Your task to perform on an android device: open chrome and create a bookmark for the current page Image 0: 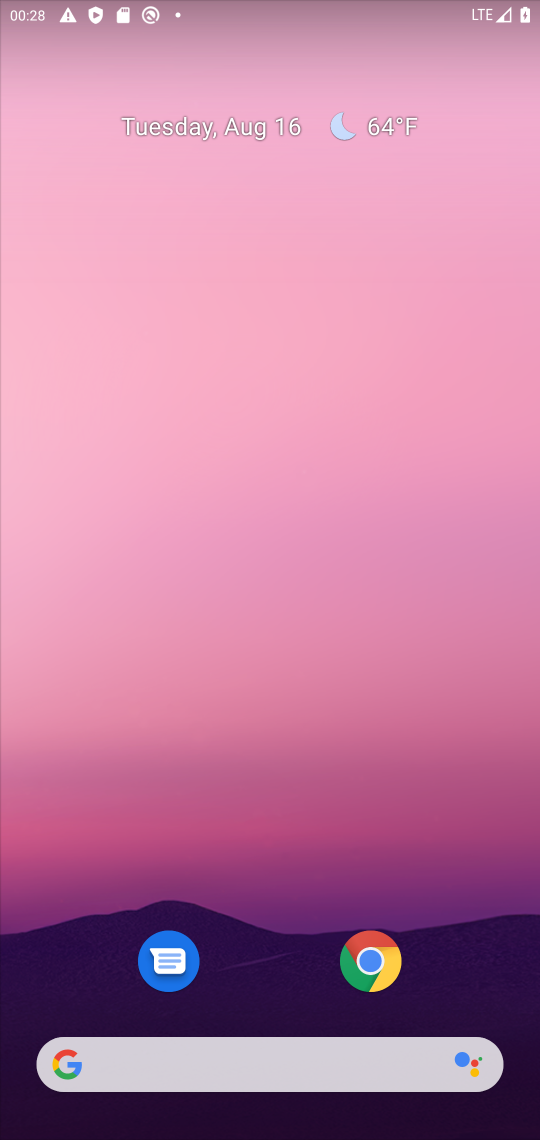
Step 0: drag from (308, 845) to (318, 445)
Your task to perform on an android device: open chrome and create a bookmark for the current page Image 1: 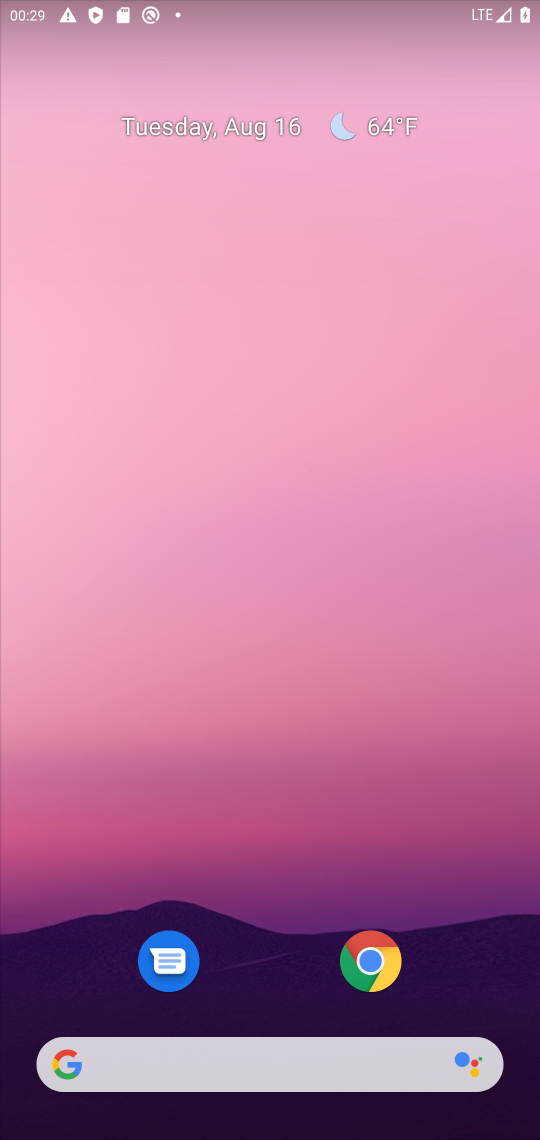
Step 1: click (357, 979)
Your task to perform on an android device: open chrome and create a bookmark for the current page Image 2: 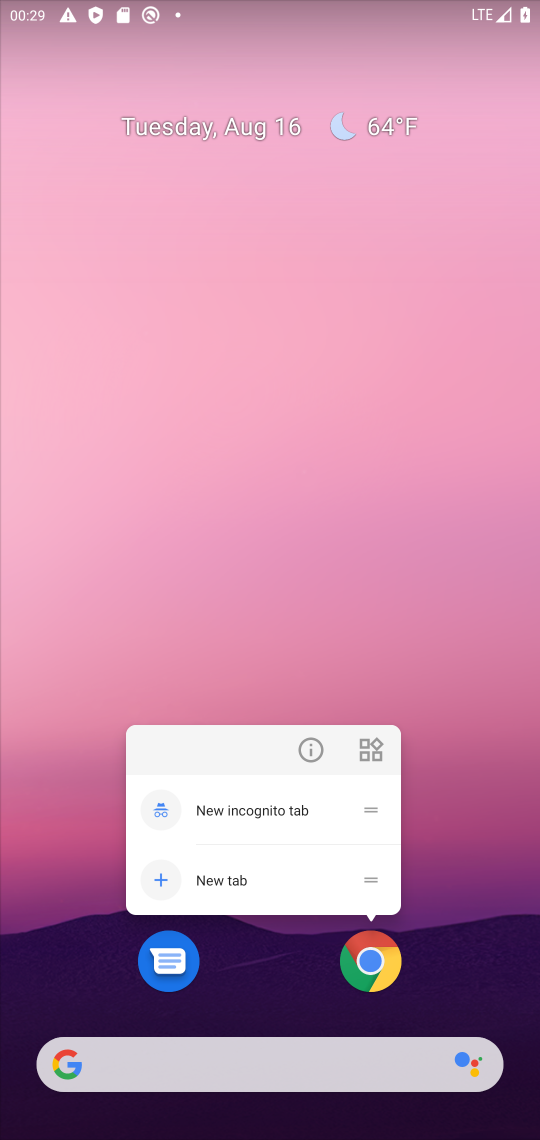
Step 2: click (357, 966)
Your task to perform on an android device: open chrome and create a bookmark for the current page Image 3: 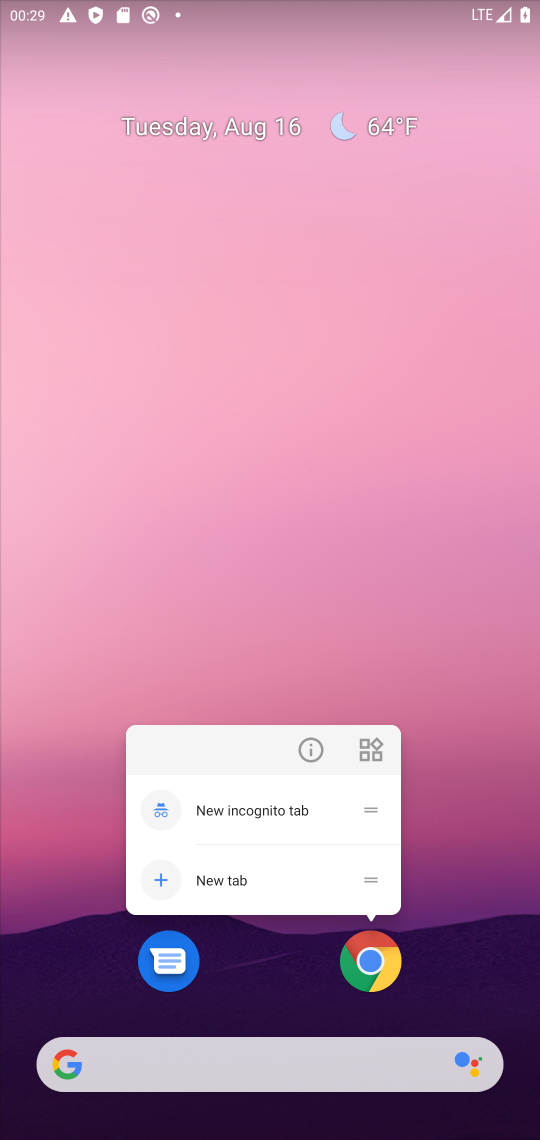
Step 3: click (367, 953)
Your task to perform on an android device: open chrome and create a bookmark for the current page Image 4: 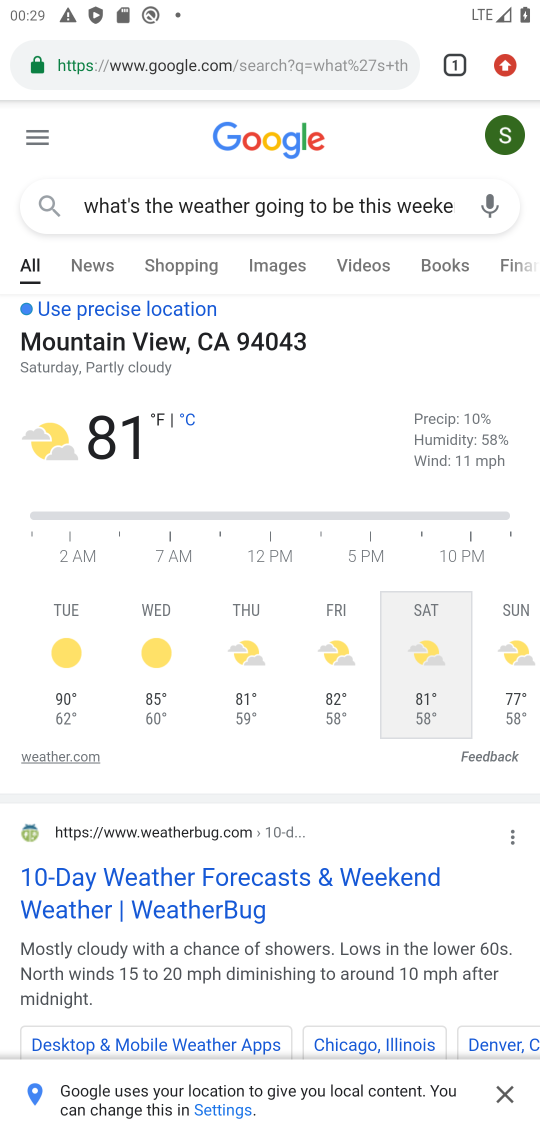
Step 4: task complete